Your task to perform on an android device: find which apps use the phone's location Image 0: 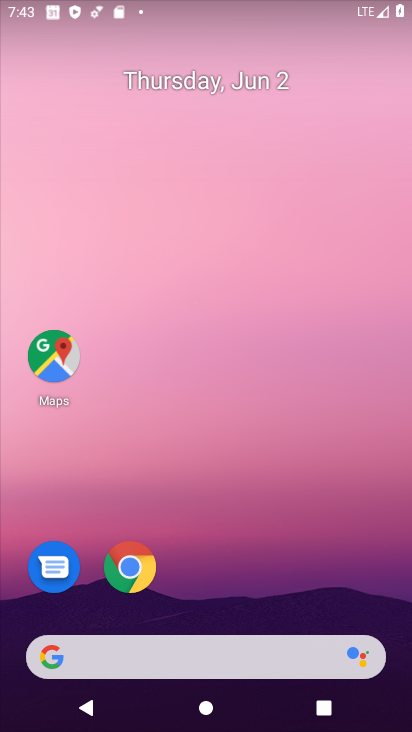
Step 0: press home button
Your task to perform on an android device: find which apps use the phone's location Image 1: 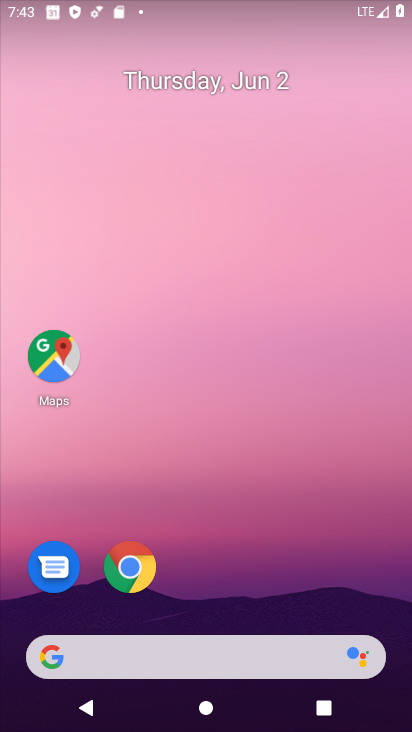
Step 1: drag from (369, 603) to (364, 132)
Your task to perform on an android device: find which apps use the phone's location Image 2: 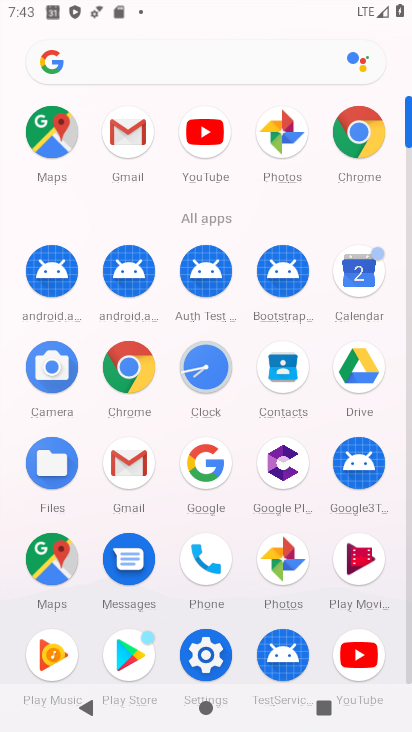
Step 2: click (214, 659)
Your task to perform on an android device: find which apps use the phone's location Image 3: 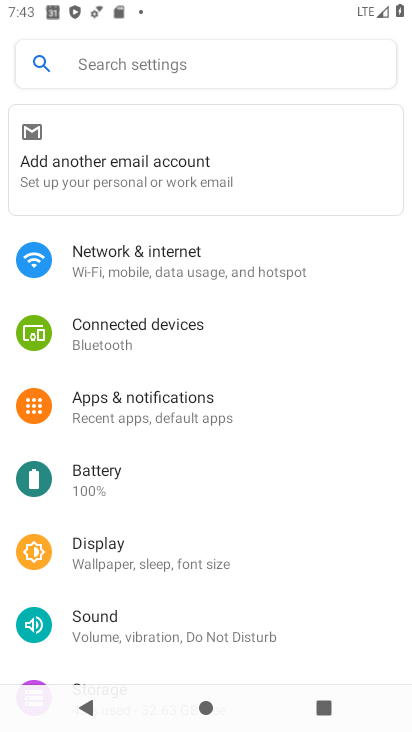
Step 3: drag from (354, 494) to (354, 348)
Your task to perform on an android device: find which apps use the phone's location Image 4: 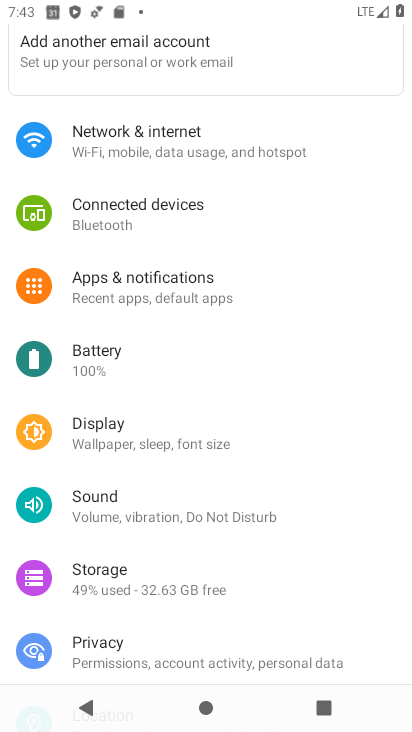
Step 4: drag from (347, 431) to (358, 323)
Your task to perform on an android device: find which apps use the phone's location Image 5: 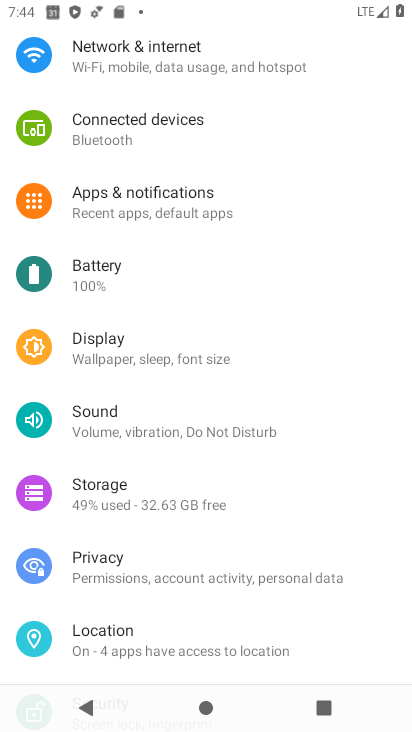
Step 5: drag from (372, 511) to (366, 378)
Your task to perform on an android device: find which apps use the phone's location Image 6: 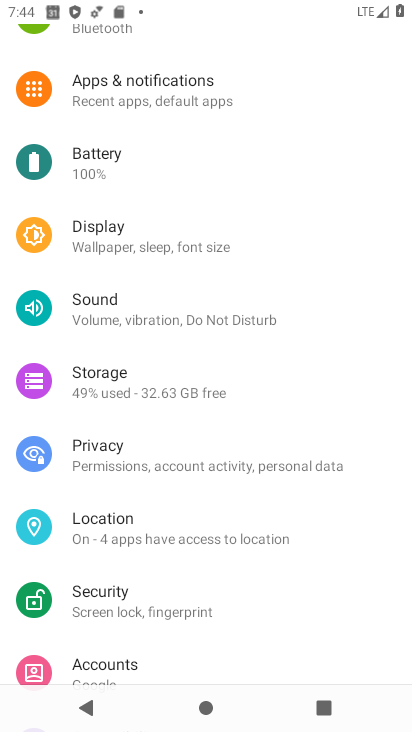
Step 6: drag from (357, 435) to (358, 351)
Your task to perform on an android device: find which apps use the phone's location Image 7: 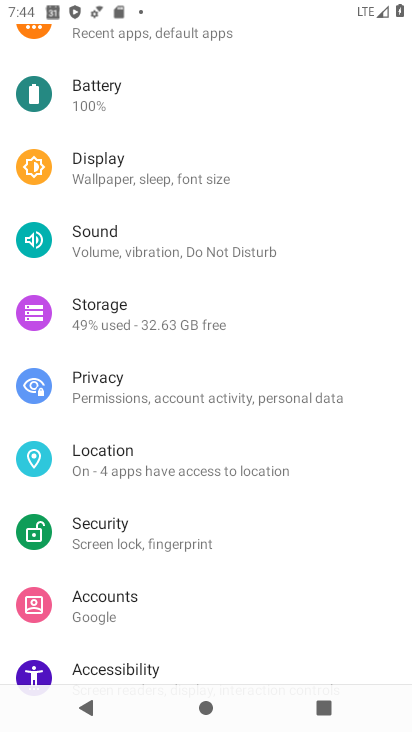
Step 7: drag from (372, 461) to (366, 329)
Your task to perform on an android device: find which apps use the phone's location Image 8: 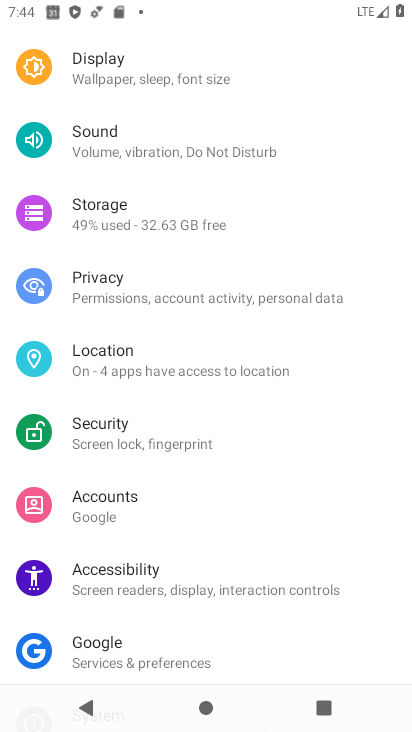
Step 8: drag from (371, 423) to (372, 282)
Your task to perform on an android device: find which apps use the phone's location Image 9: 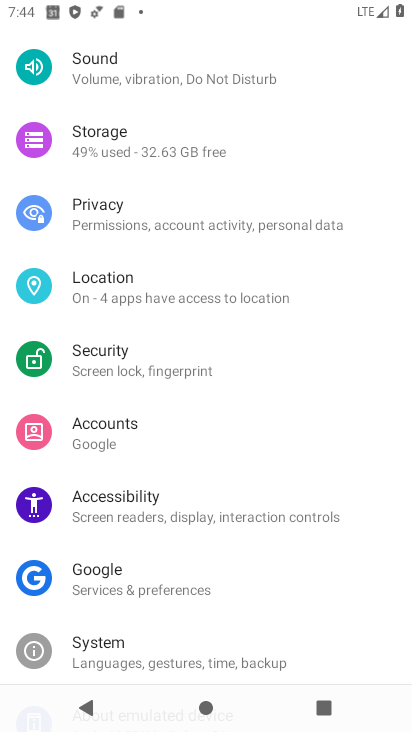
Step 9: drag from (376, 377) to (378, 233)
Your task to perform on an android device: find which apps use the phone's location Image 10: 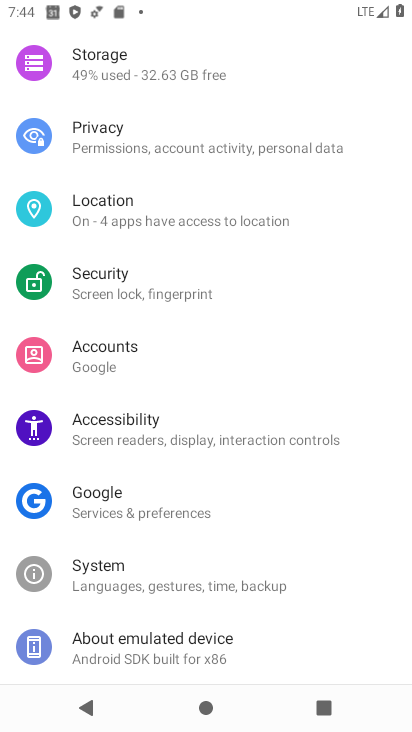
Step 10: drag from (384, 376) to (377, 221)
Your task to perform on an android device: find which apps use the phone's location Image 11: 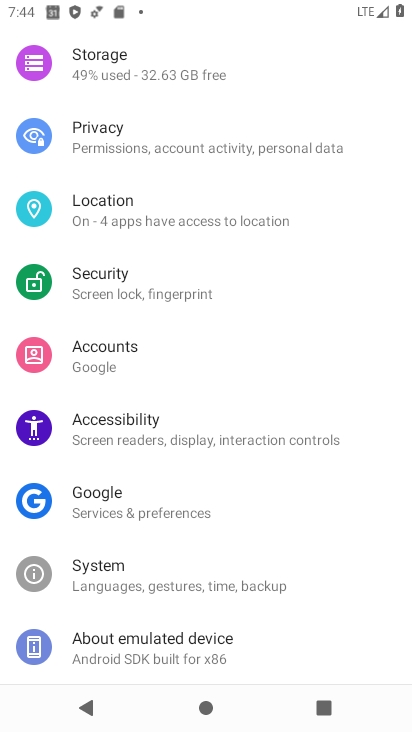
Step 11: drag from (352, 307) to (349, 414)
Your task to perform on an android device: find which apps use the phone's location Image 12: 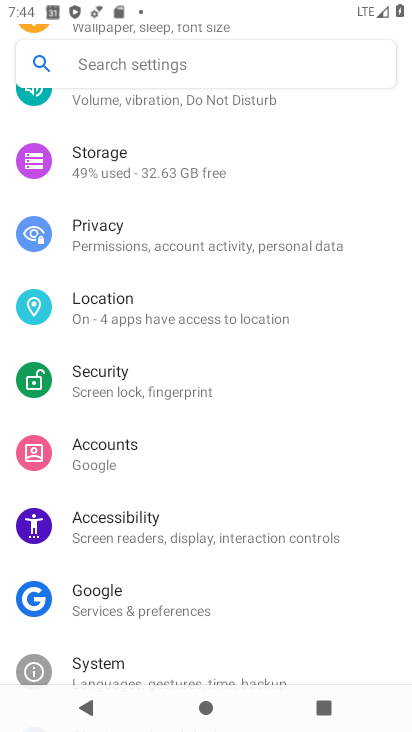
Step 12: drag from (358, 286) to (356, 432)
Your task to perform on an android device: find which apps use the phone's location Image 13: 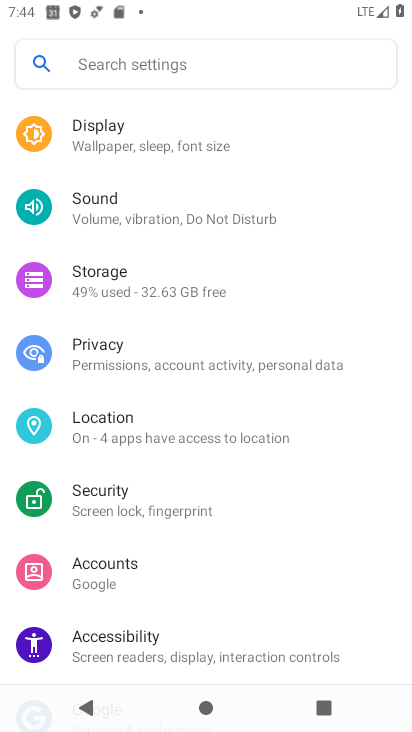
Step 13: click (195, 421)
Your task to perform on an android device: find which apps use the phone's location Image 14: 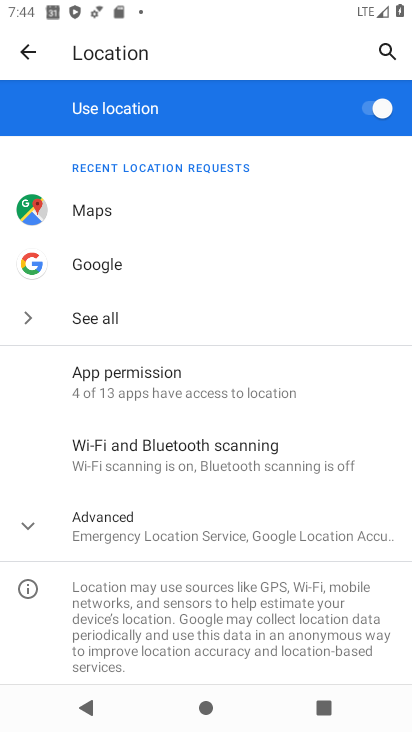
Step 14: click (183, 386)
Your task to perform on an android device: find which apps use the phone's location Image 15: 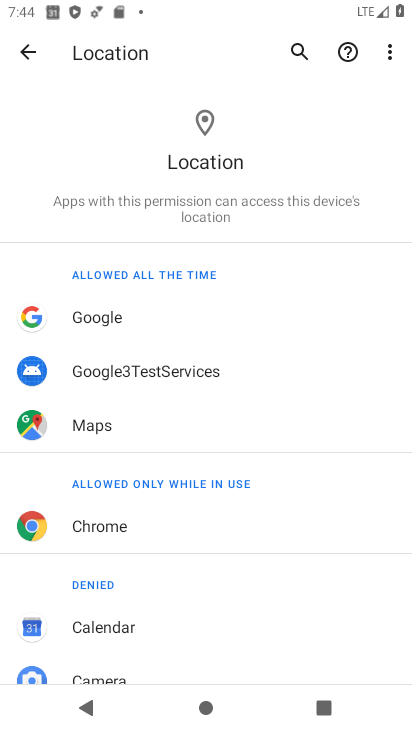
Step 15: drag from (317, 464) to (328, 358)
Your task to perform on an android device: find which apps use the phone's location Image 16: 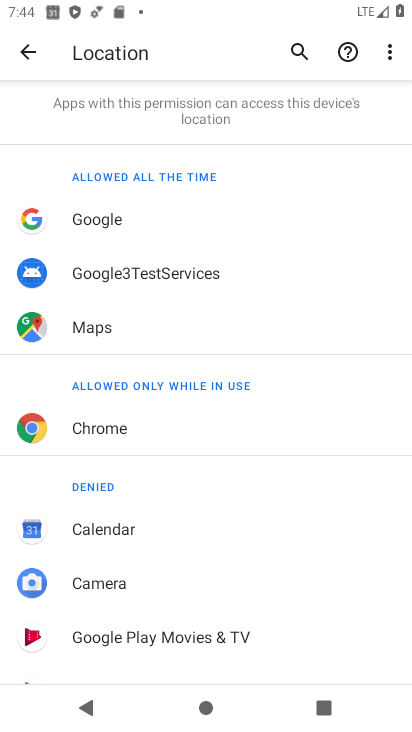
Step 16: drag from (313, 504) to (320, 383)
Your task to perform on an android device: find which apps use the phone's location Image 17: 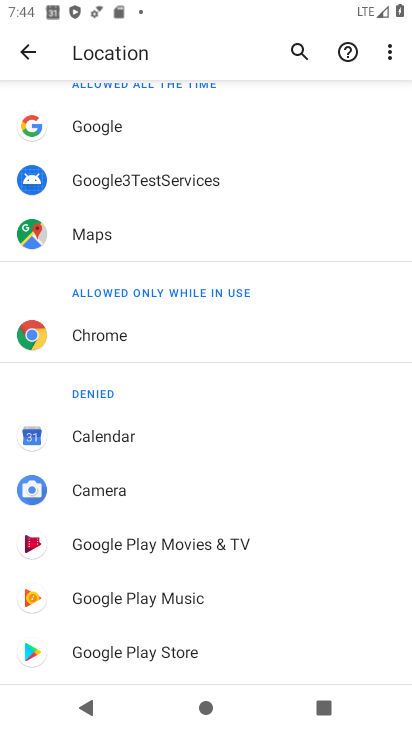
Step 17: drag from (319, 496) to (323, 367)
Your task to perform on an android device: find which apps use the phone's location Image 18: 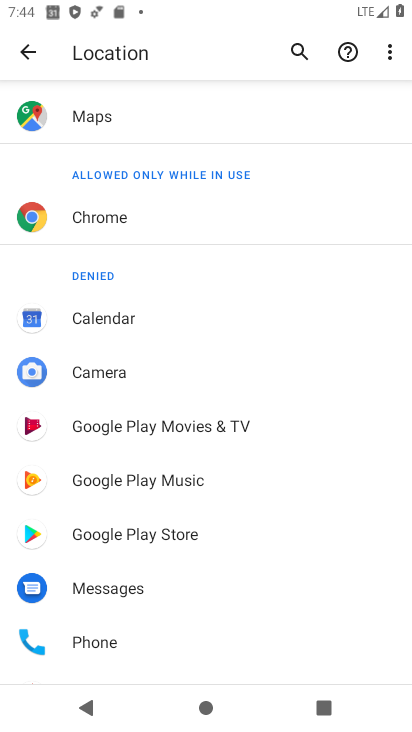
Step 18: drag from (307, 526) to (312, 391)
Your task to perform on an android device: find which apps use the phone's location Image 19: 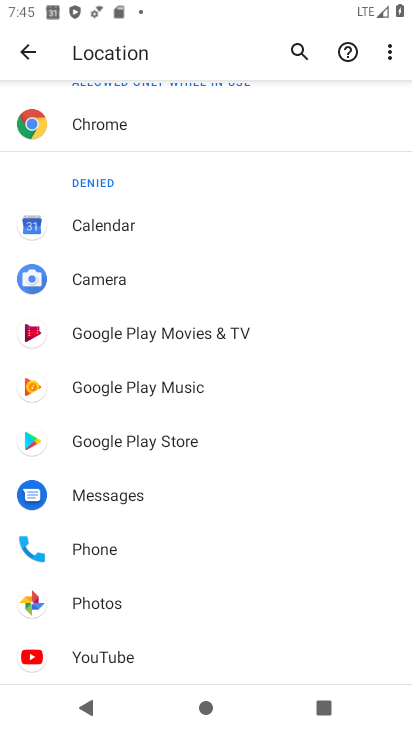
Step 19: click (111, 598)
Your task to perform on an android device: find which apps use the phone's location Image 20: 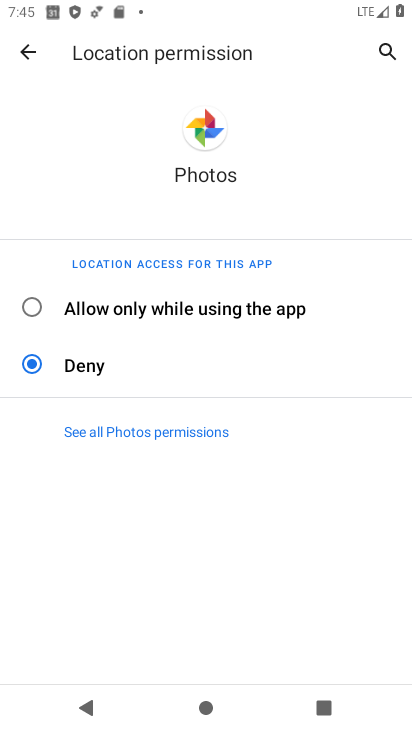
Step 20: click (37, 297)
Your task to perform on an android device: find which apps use the phone's location Image 21: 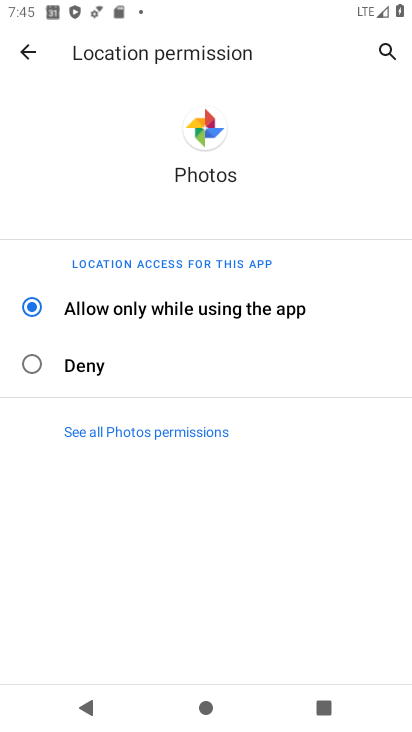
Step 21: task complete